Your task to perform on an android device: turn smart compose on in the gmail app Image 0: 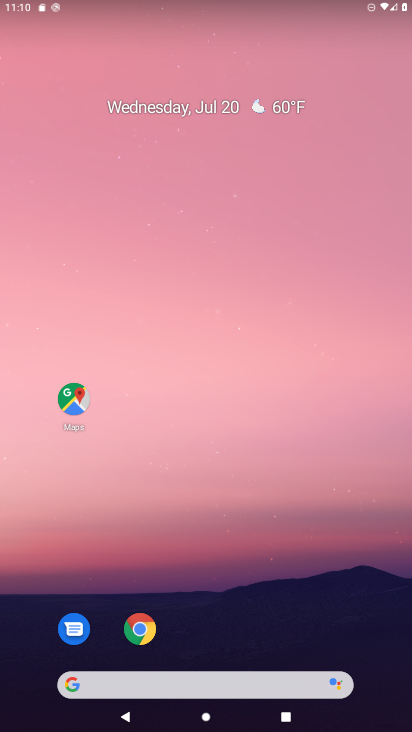
Step 0: drag from (203, 629) to (226, 213)
Your task to perform on an android device: turn smart compose on in the gmail app Image 1: 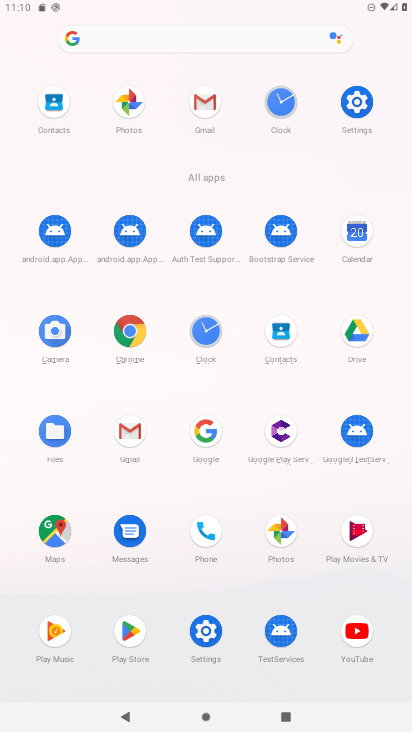
Step 1: click (146, 435)
Your task to perform on an android device: turn smart compose on in the gmail app Image 2: 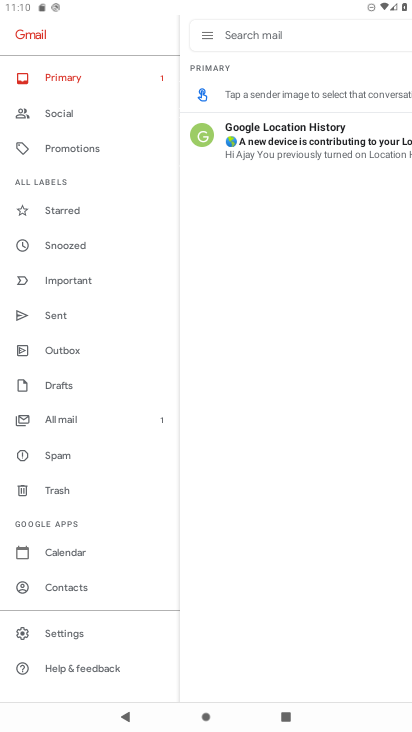
Step 2: click (77, 642)
Your task to perform on an android device: turn smart compose on in the gmail app Image 3: 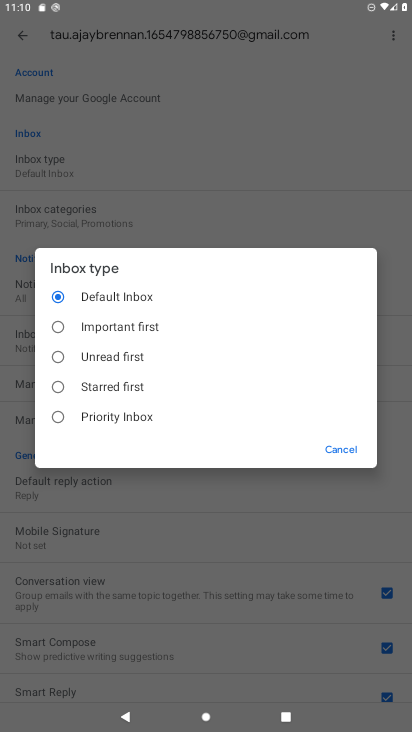
Step 3: click (233, 546)
Your task to perform on an android device: turn smart compose on in the gmail app Image 4: 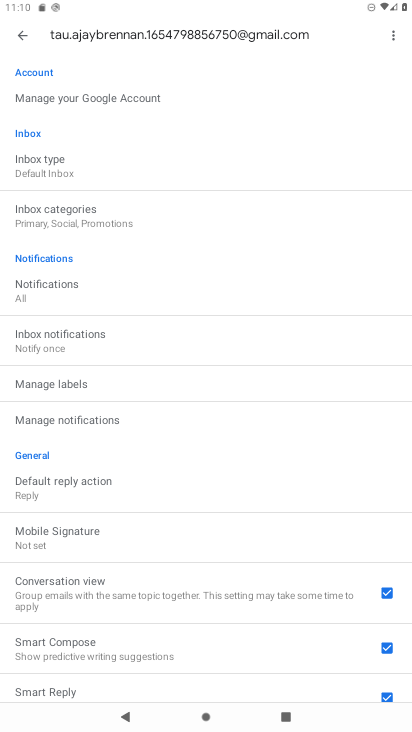
Step 4: task complete